Your task to perform on an android device: Play the last video I watched on Youtube Image 0: 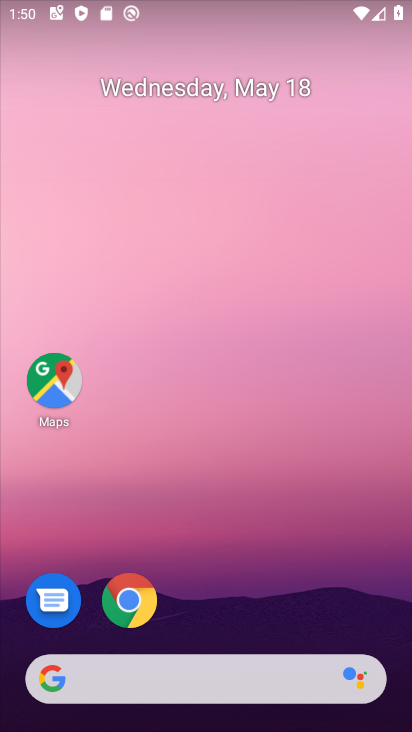
Step 0: drag from (287, 585) to (244, 54)
Your task to perform on an android device: Play the last video I watched on Youtube Image 1: 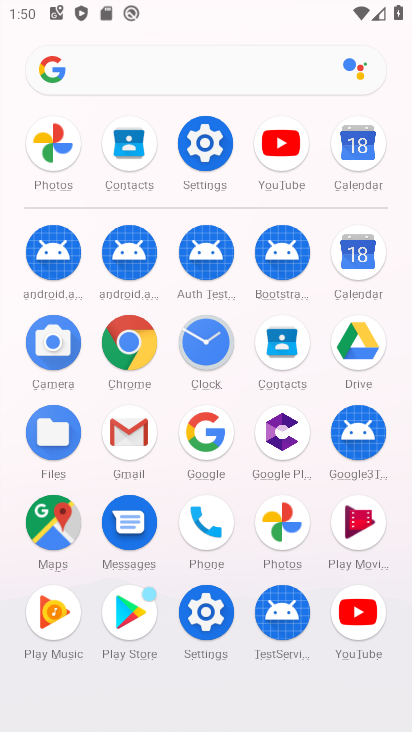
Step 1: click (357, 610)
Your task to perform on an android device: Play the last video I watched on Youtube Image 2: 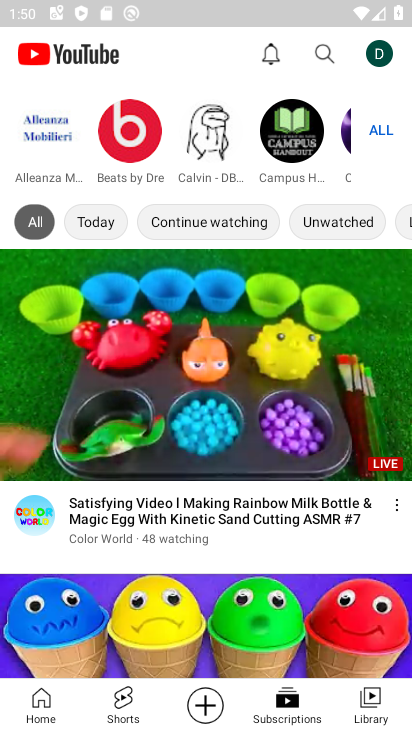
Step 2: click (373, 697)
Your task to perform on an android device: Play the last video I watched on Youtube Image 3: 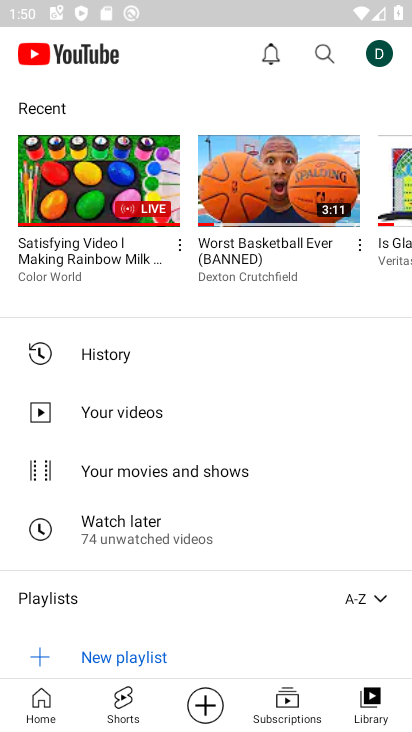
Step 3: click (103, 188)
Your task to perform on an android device: Play the last video I watched on Youtube Image 4: 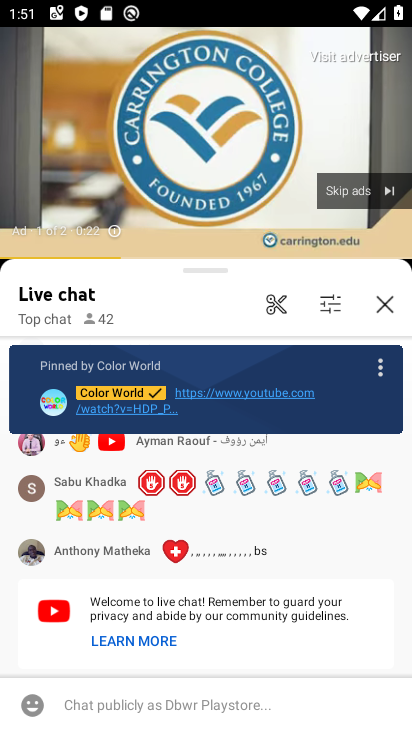
Step 4: click (355, 179)
Your task to perform on an android device: Play the last video I watched on Youtube Image 5: 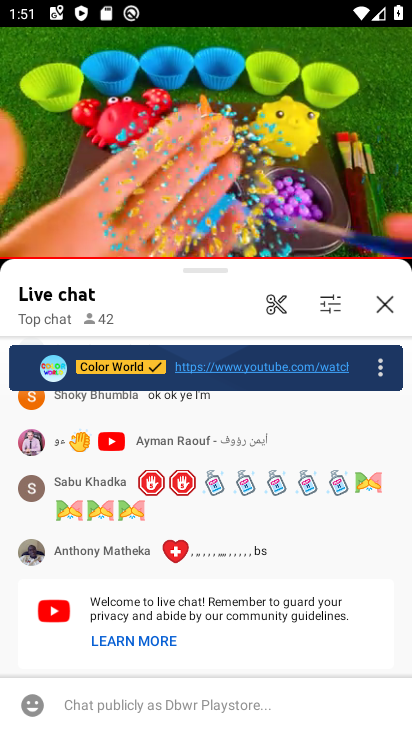
Step 5: task complete